Your task to perform on an android device: delete browsing data in the chrome app Image 0: 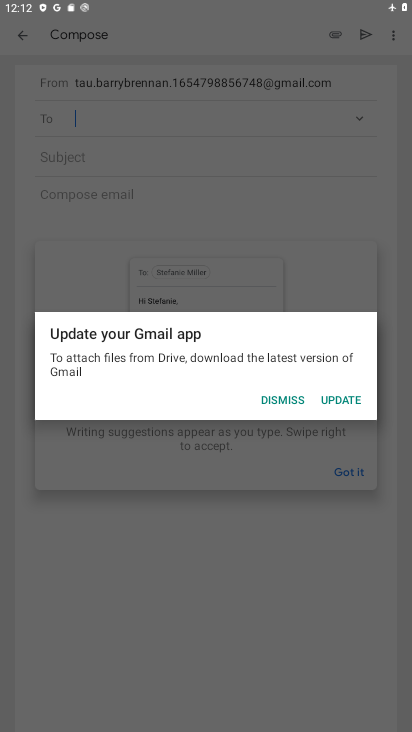
Step 0: press home button
Your task to perform on an android device: delete browsing data in the chrome app Image 1: 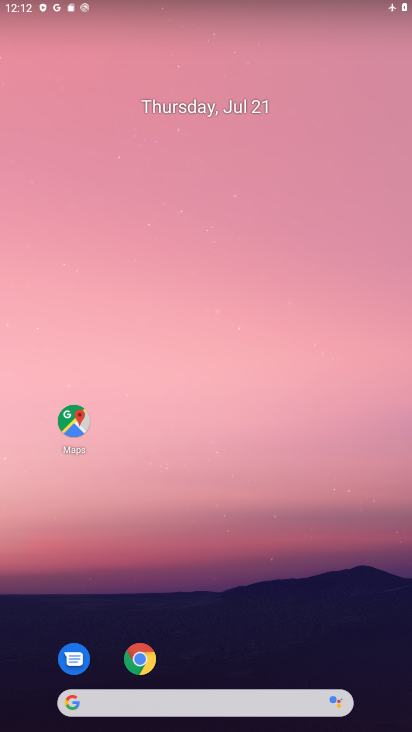
Step 1: drag from (305, 641) to (326, 196)
Your task to perform on an android device: delete browsing data in the chrome app Image 2: 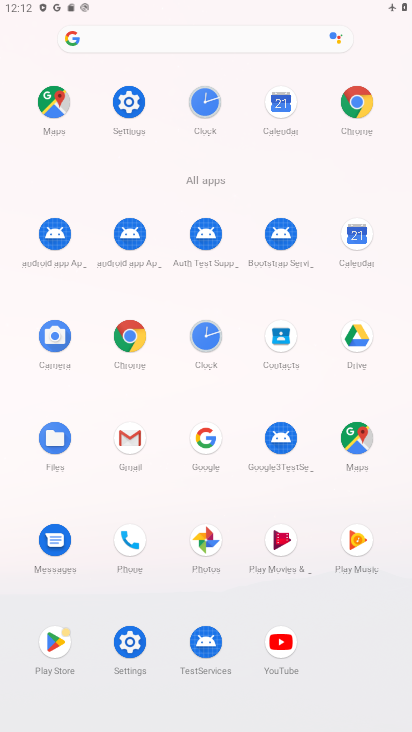
Step 2: click (357, 104)
Your task to perform on an android device: delete browsing data in the chrome app Image 3: 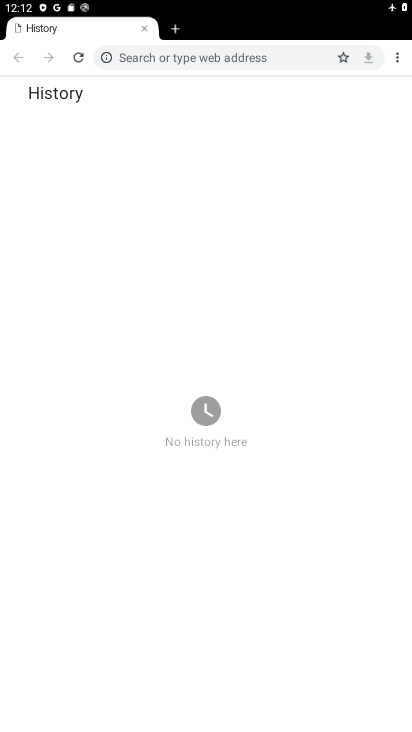
Step 3: click (396, 70)
Your task to perform on an android device: delete browsing data in the chrome app Image 4: 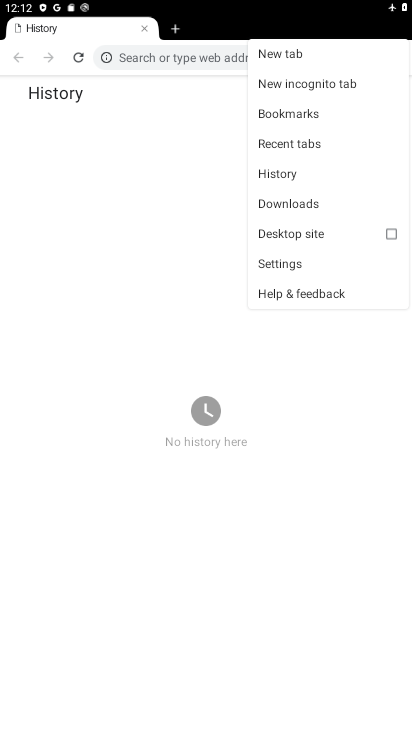
Step 4: click (303, 170)
Your task to perform on an android device: delete browsing data in the chrome app Image 5: 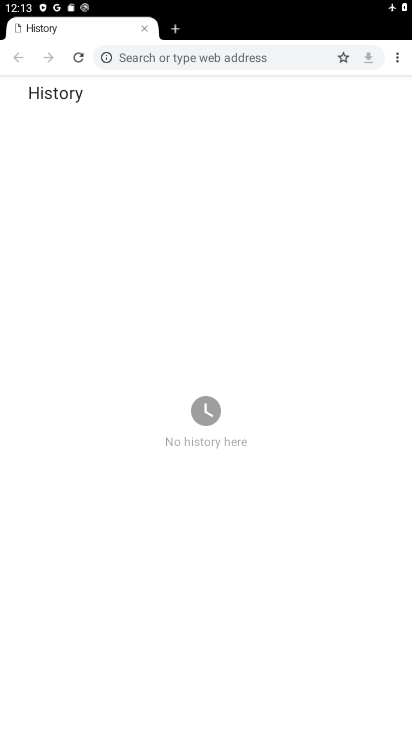
Step 5: click (399, 63)
Your task to perform on an android device: delete browsing data in the chrome app Image 6: 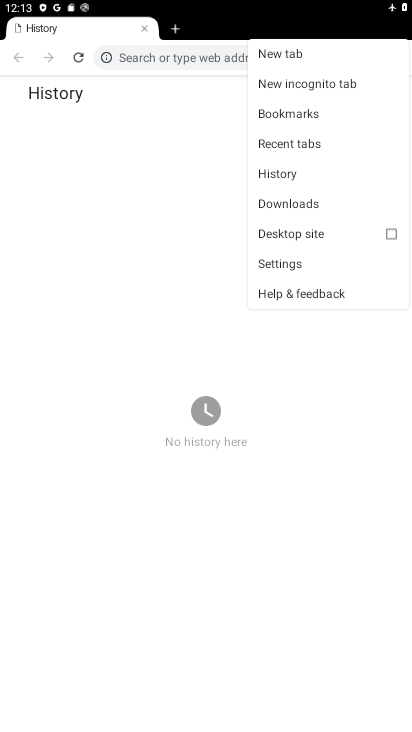
Step 6: click (267, 169)
Your task to perform on an android device: delete browsing data in the chrome app Image 7: 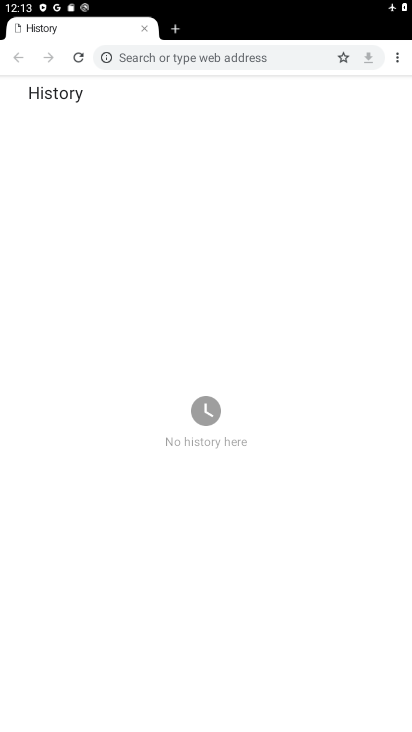
Step 7: task complete